Your task to perform on an android device: toggle sleep mode Image 0: 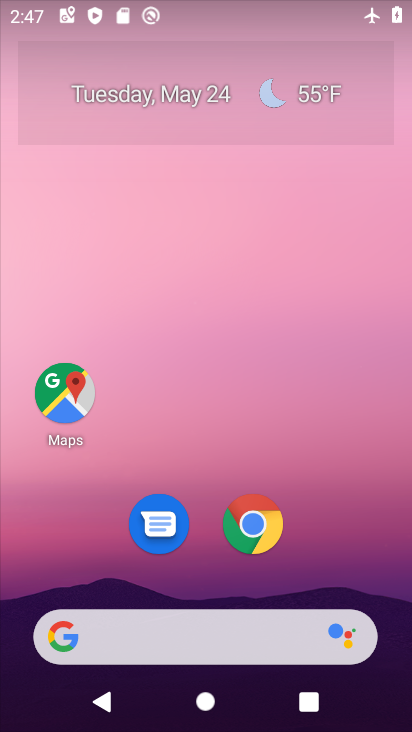
Step 0: drag from (334, 566) to (339, 0)
Your task to perform on an android device: toggle sleep mode Image 1: 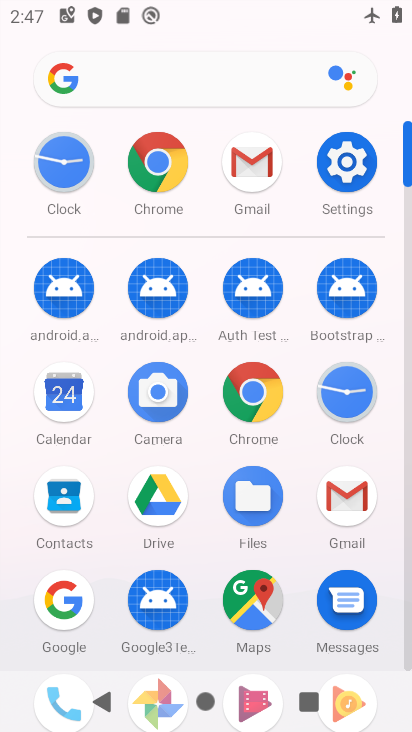
Step 1: click (339, 169)
Your task to perform on an android device: toggle sleep mode Image 2: 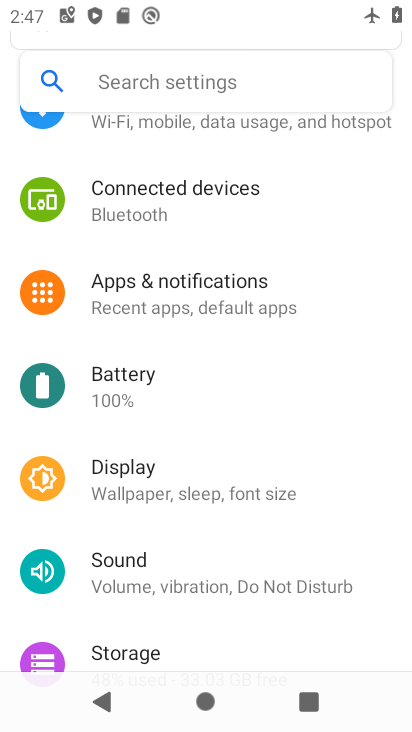
Step 2: click (198, 475)
Your task to perform on an android device: toggle sleep mode Image 3: 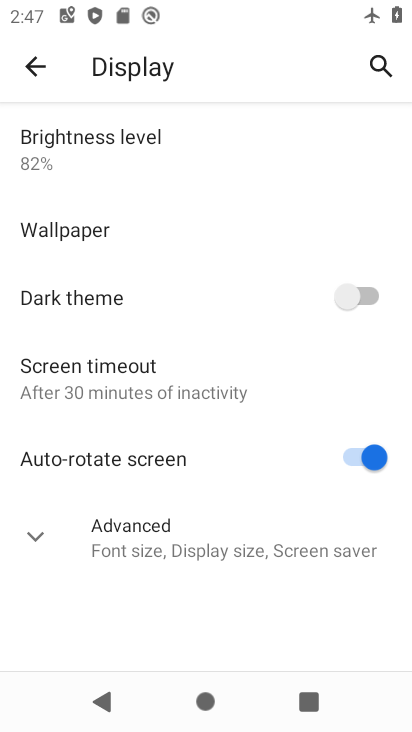
Step 3: click (35, 535)
Your task to perform on an android device: toggle sleep mode Image 4: 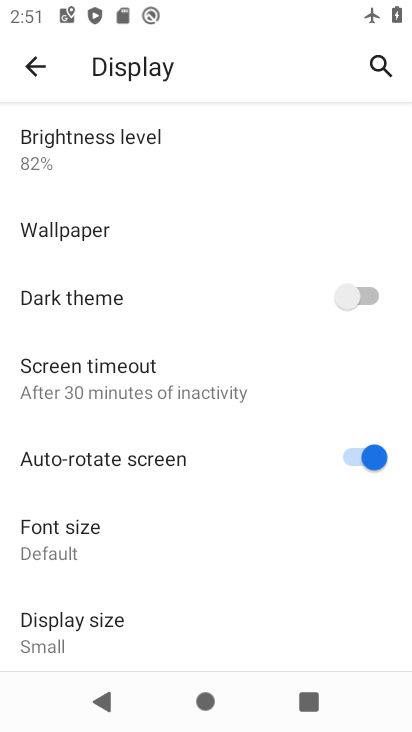
Step 4: task complete